Your task to perform on an android device: Open sound settings Image 0: 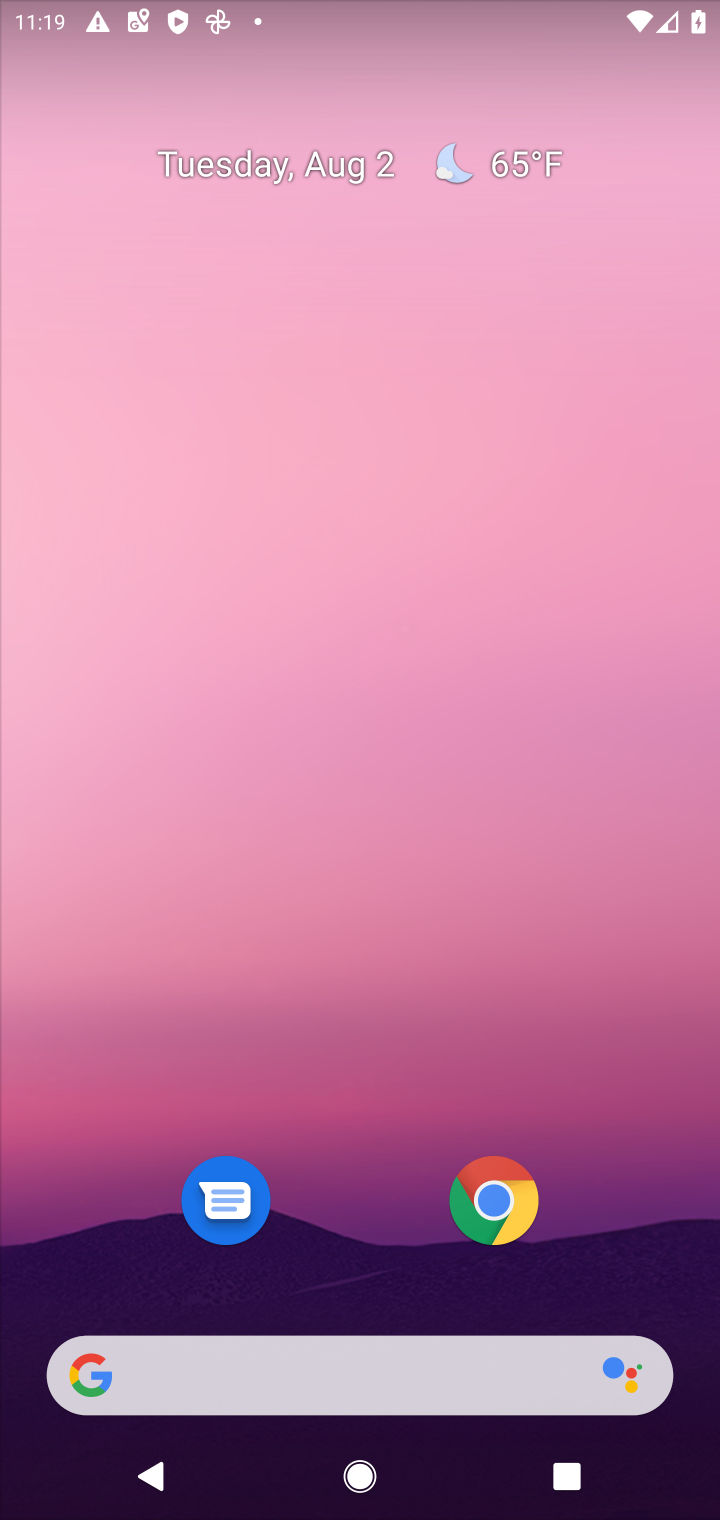
Step 0: drag from (668, 1267) to (569, 446)
Your task to perform on an android device: Open sound settings Image 1: 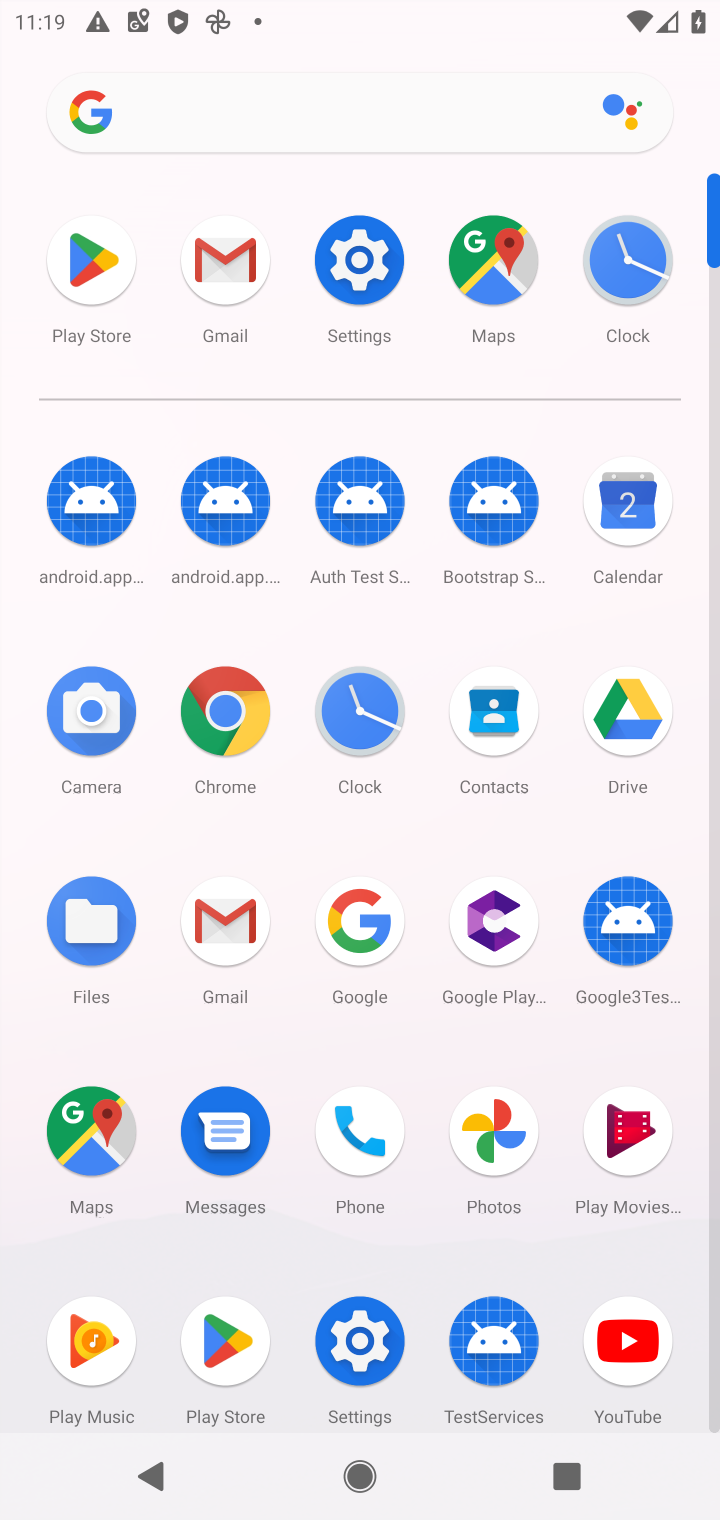
Step 1: click (364, 1340)
Your task to perform on an android device: Open sound settings Image 2: 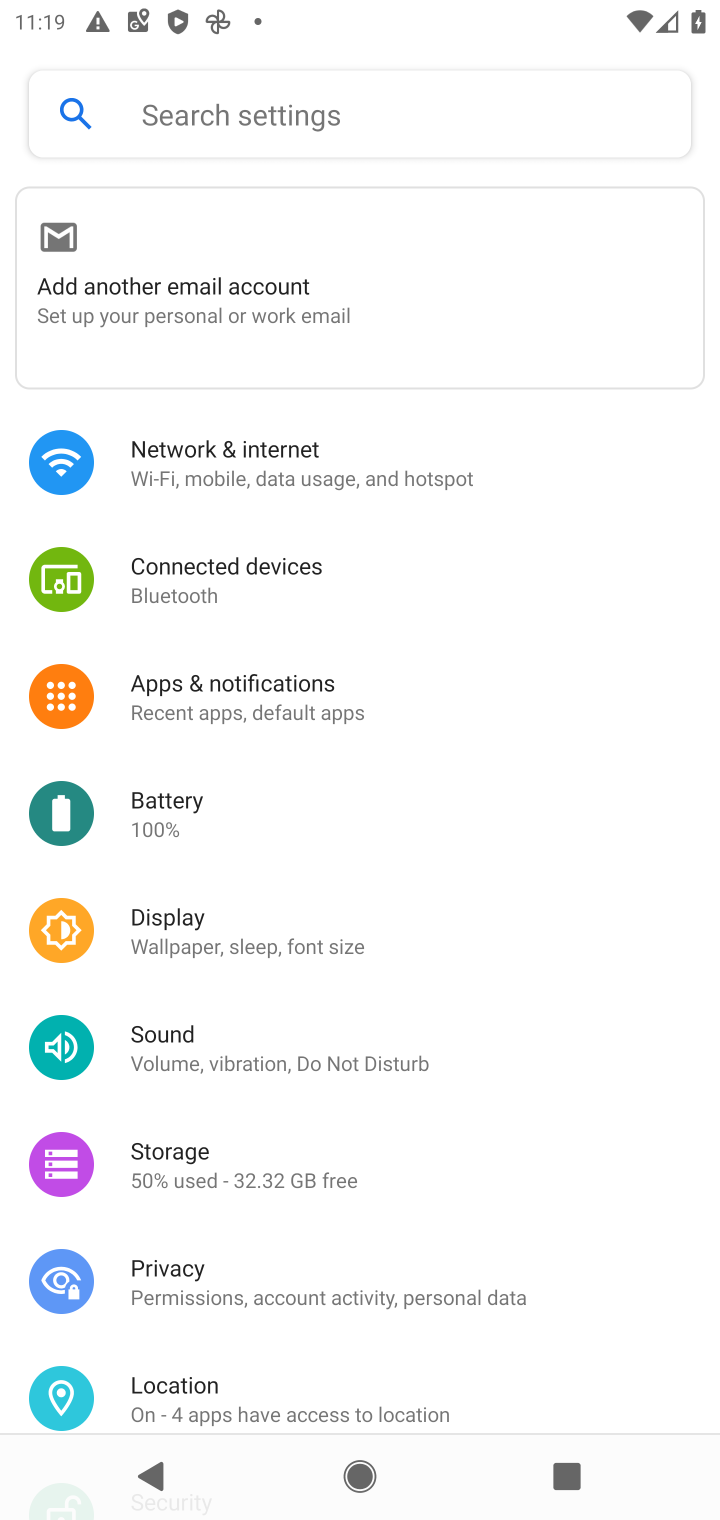
Step 2: click (188, 1054)
Your task to perform on an android device: Open sound settings Image 3: 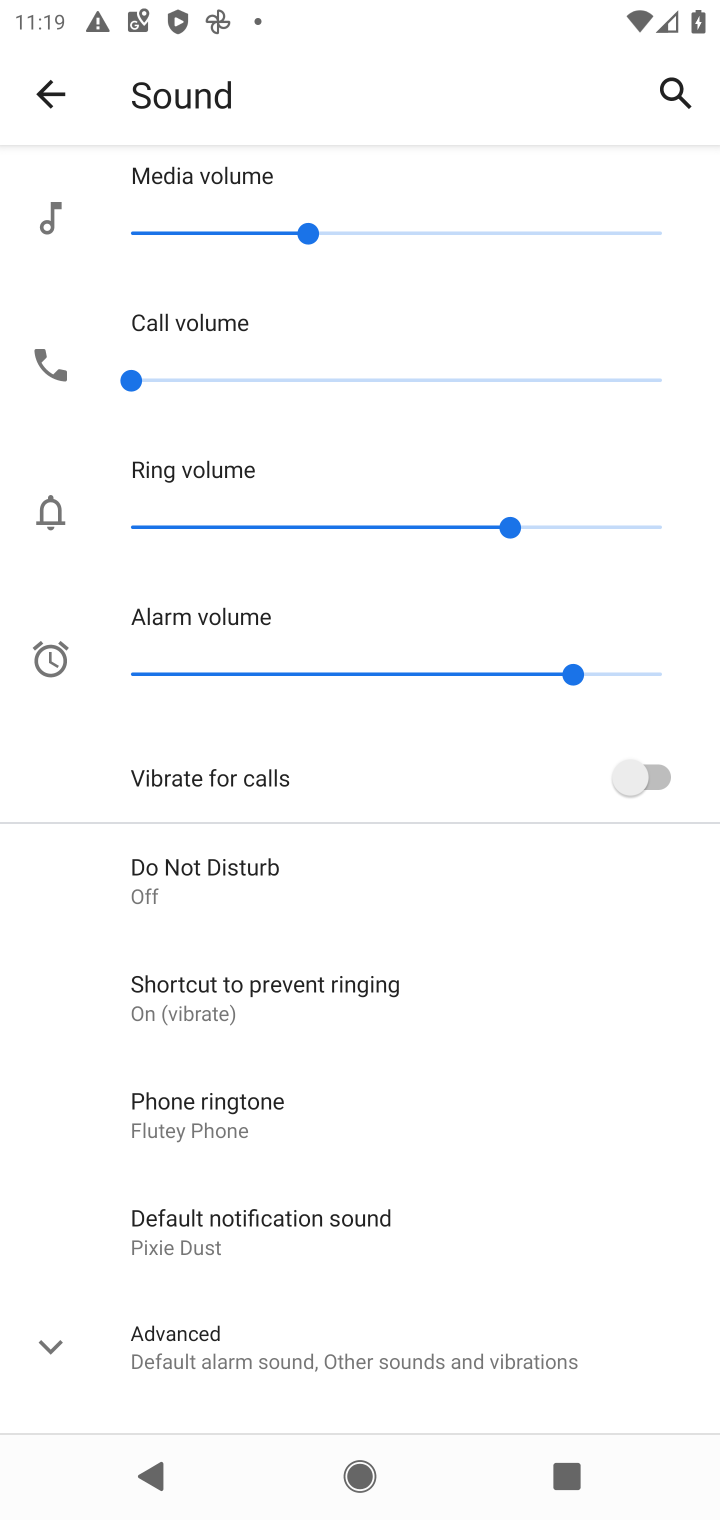
Step 3: click (56, 1353)
Your task to perform on an android device: Open sound settings Image 4: 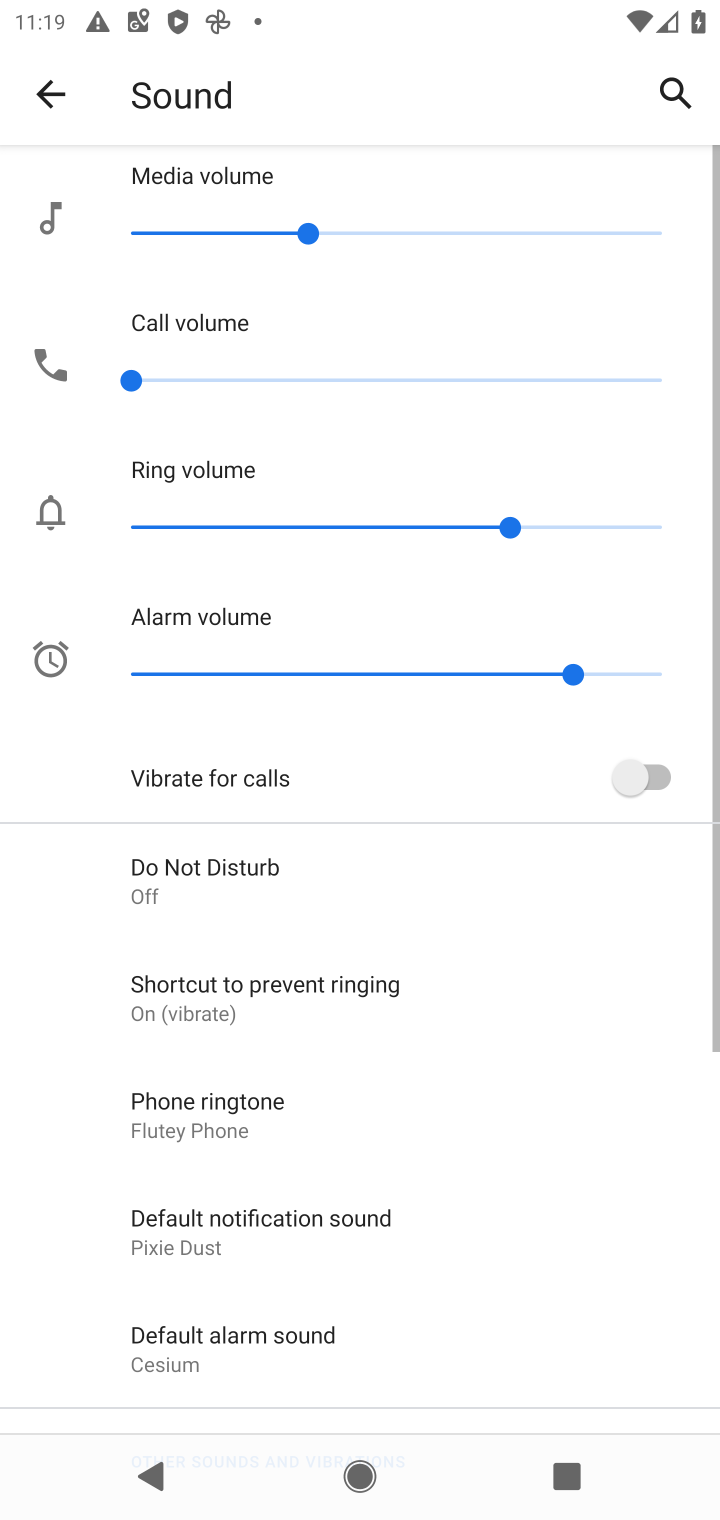
Step 4: task complete